Your task to perform on an android device: move an email to a new category in the gmail app Image 0: 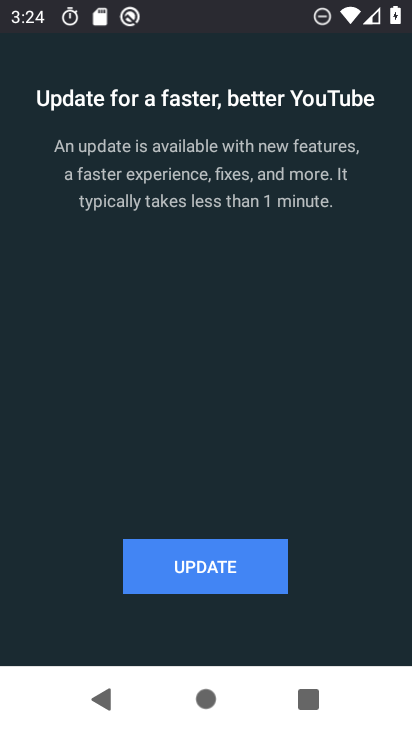
Step 0: press home button
Your task to perform on an android device: move an email to a new category in the gmail app Image 1: 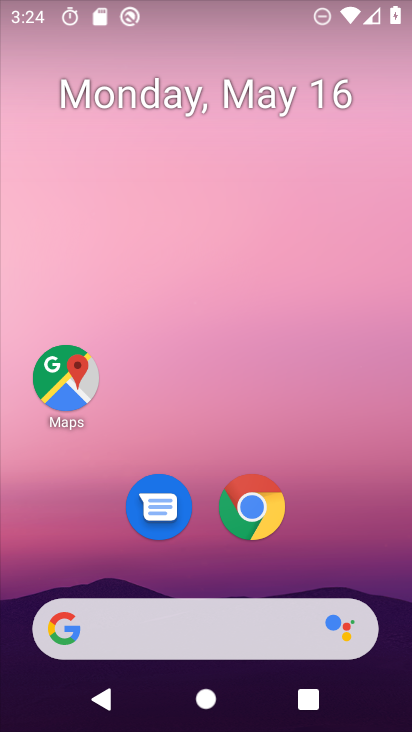
Step 1: drag from (319, 538) to (250, 100)
Your task to perform on an android device: move an email to a new category in the gmail app Image 2: 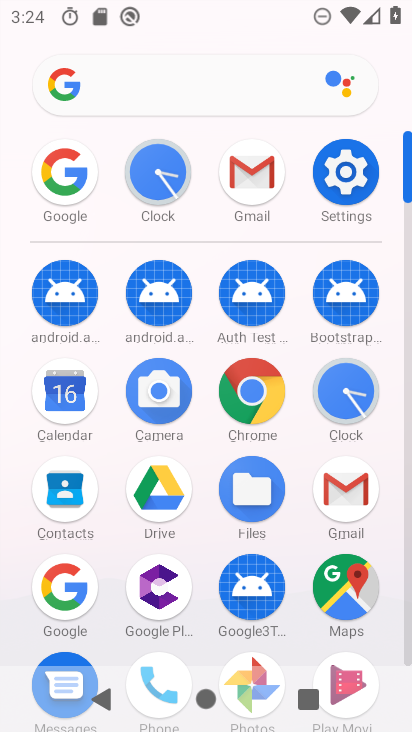
Step 2: click (269, 178)
Your task to perform on an android device: move an email to a new category in the gmail app Image 3: 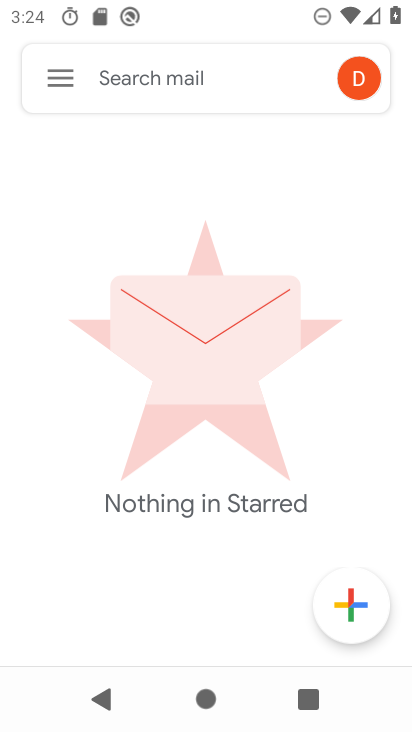
Step 3: task complete